Your task to perform on an android device: show emergency info Image 0: 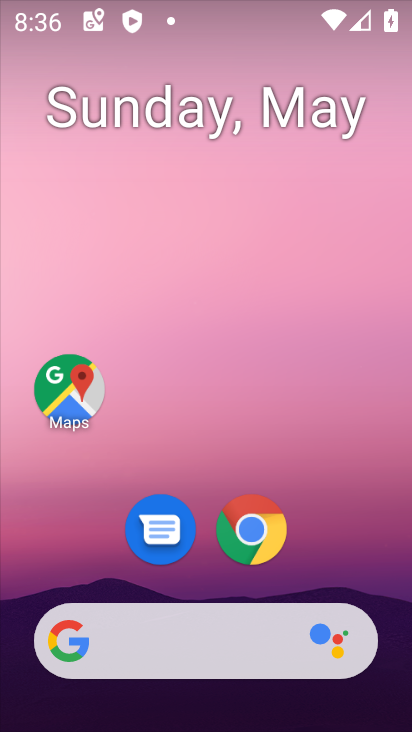
Step 0: drag from (373, 602) to (14, 653)
Your task to perform on an android device: show emergency info Image 1: 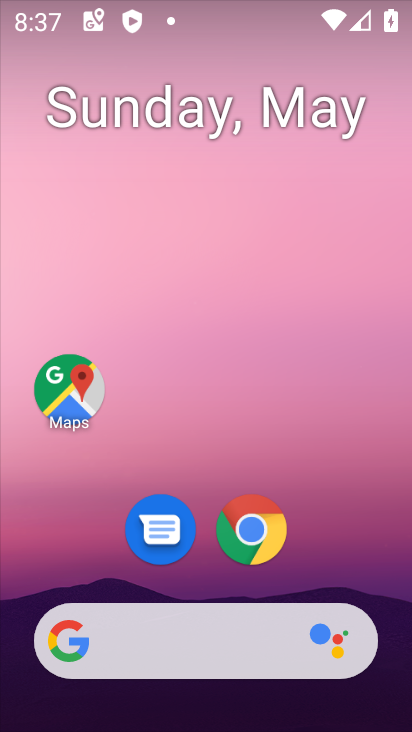
Step 1: drag from (364, 576) to (202, 12)
Your task to perform on an android device: show emergency info Image 2: 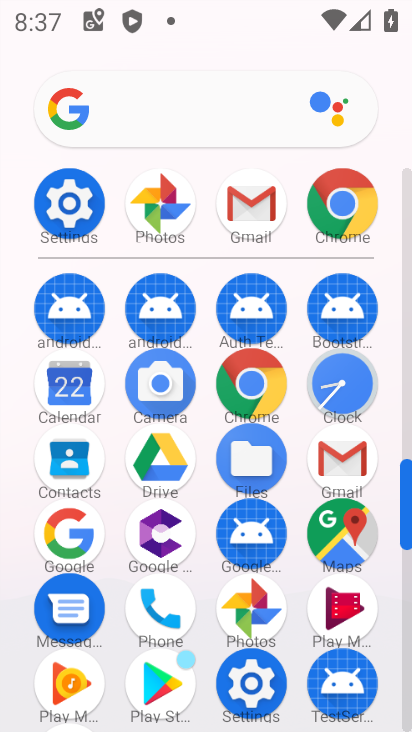
Step 2: click (63, 214)
Your task to perform on an android device: show emergency info Image 3: 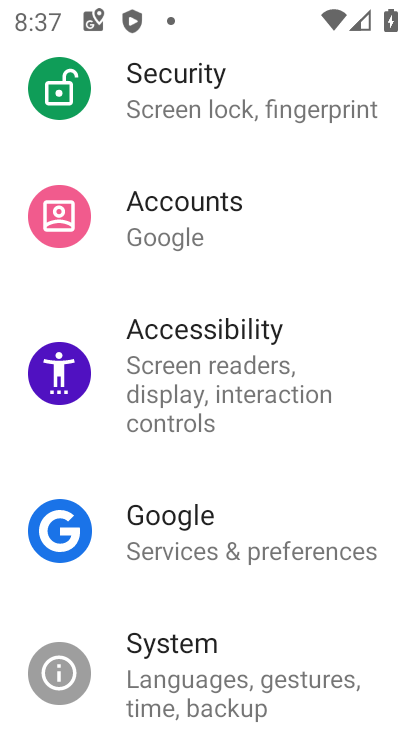
Step 3: drag from (355, 675) to (320, 60)
Your task to perform on an android device: show emergency info Image 4: 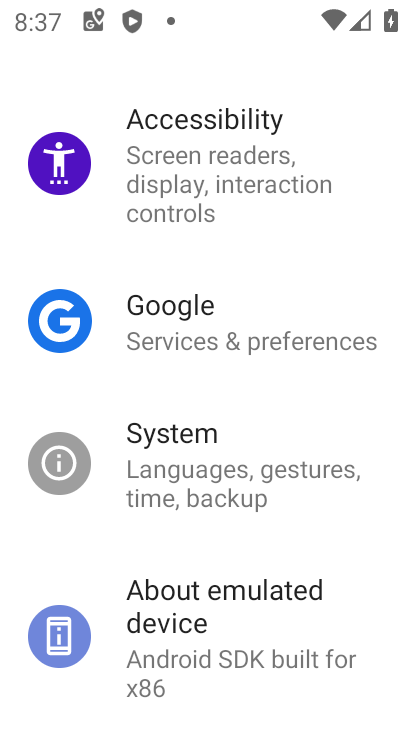
Step 4: click (171, 633)
Your task to perform on an android device: show emergency info Image 5: 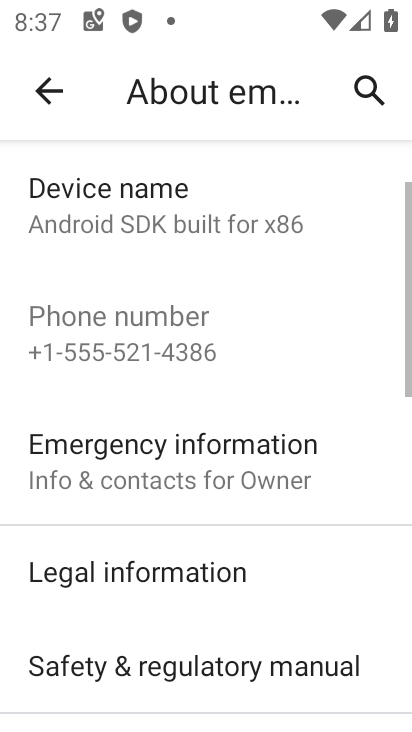
Step 5: click (146, 476)
Your task to perform on an android device: show emergency info Image 6: 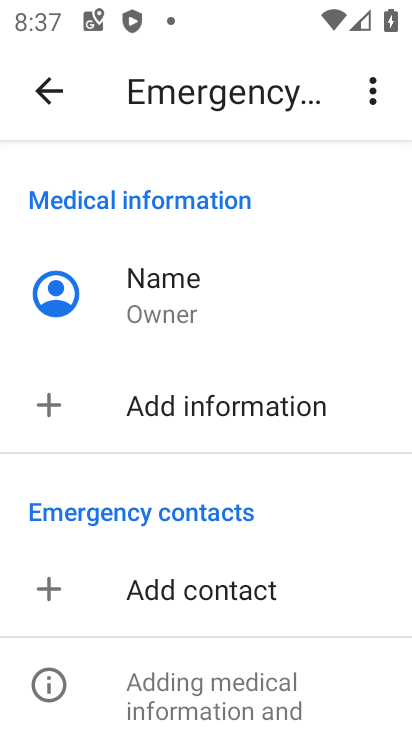
Step 6: task complete